Your task to perform on an android device: Search for pizza restaurants on Maps Image 0: 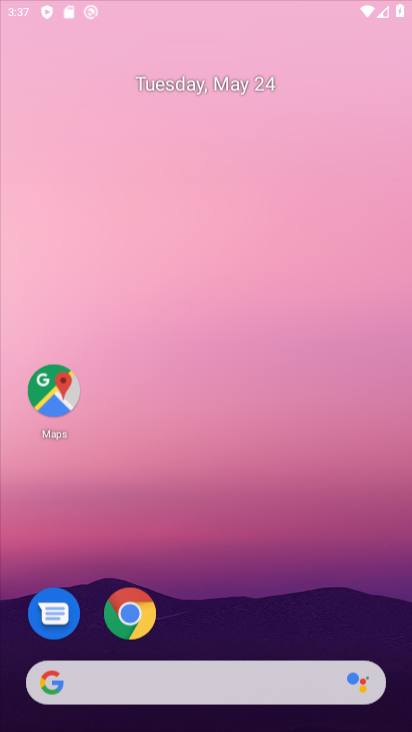
Step 0: click (129, 623)
Your task to perform on an android device: Search for pizza restaurants on Maps Image 1: 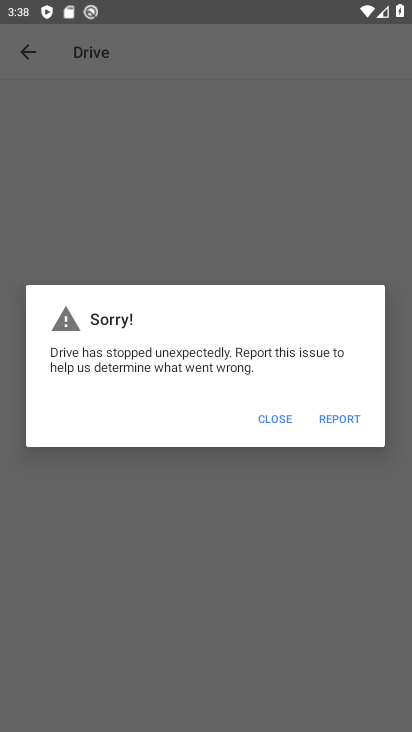
Step 1: press home button
Your task to perform on an android device: Search for pizza restaurants on Maps Image 2: 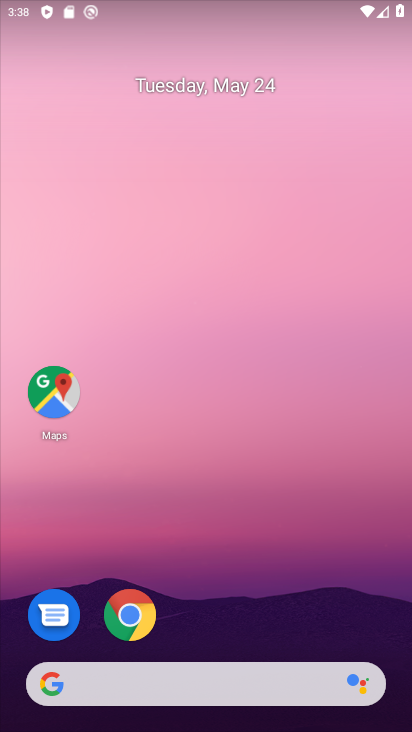
Step 2: click (57, 405)
Your task to perform on an android device: Search for pizza restaurants on Maps Image 3: 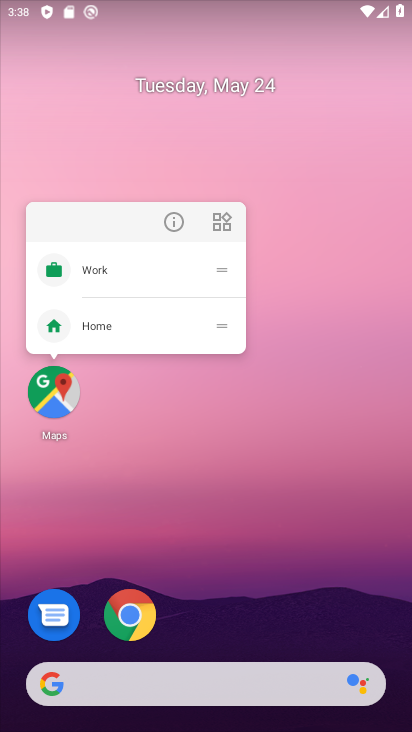
Step 3: click (47, 406)
Your task to perform on an android device: Search for pizza restaurants on Maps Image 4: 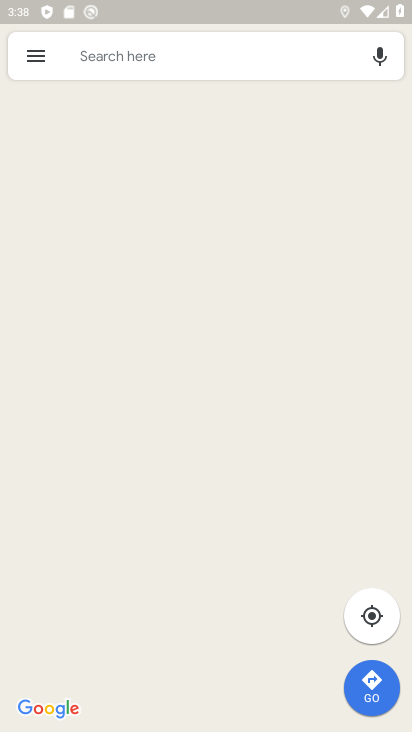
Step 4: click (144, 73)
Your task to perform on an android device: Search for pizza restaurants on Maps Image 5: 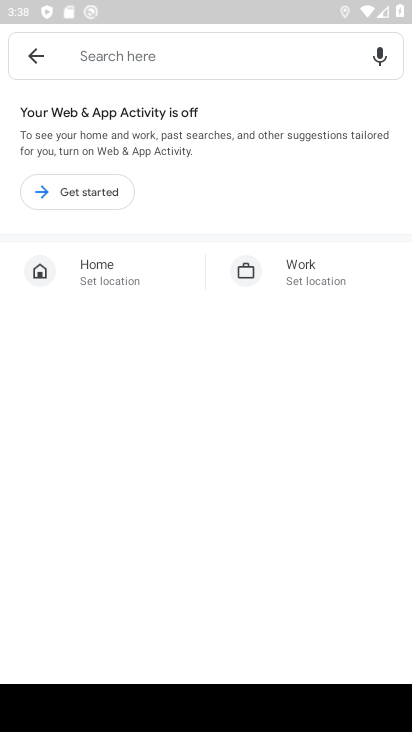
Step 5: click (138, 61)
Your task to perform on an android device: Search for pizza restaurants on Maps Image 6: 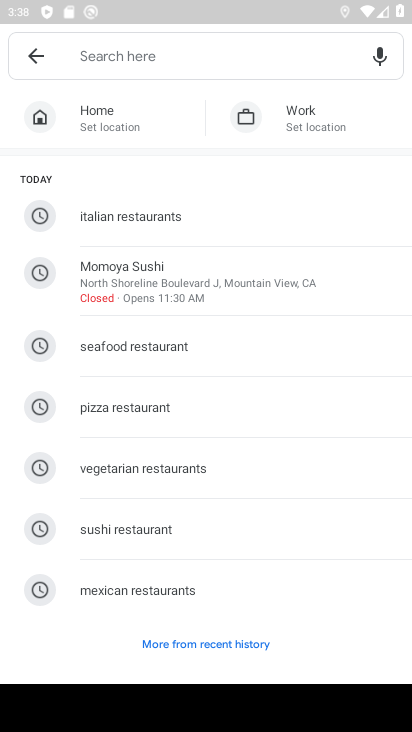
Step 6: type "Pizza restaurants"
Your task to perform on an android device: Search for pizza restaurants on Maps Image 7: 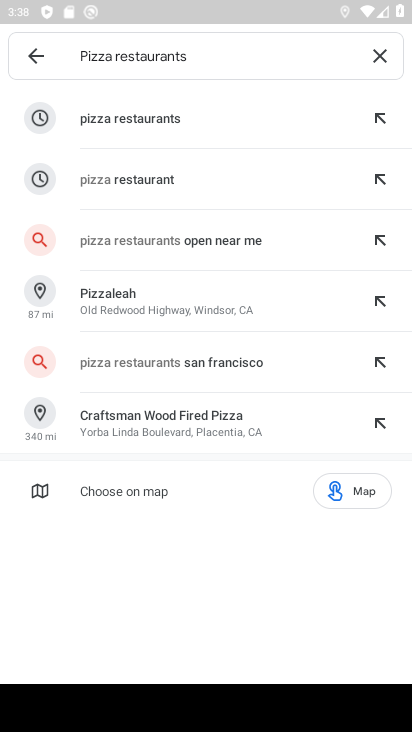
Step 7: click (182, 101)
Your task to perform on an android device: Search for pizza restaurants on Maps Image 8: 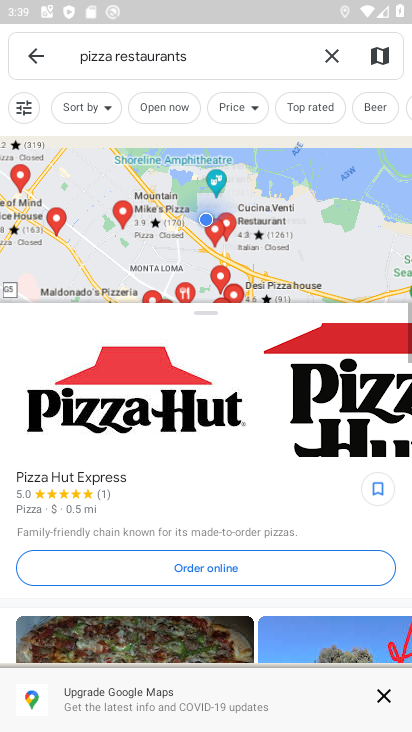
Step 8: task complete